Your task to perform on an android device: Open Google Maps and go to "Timeline" Image 0: 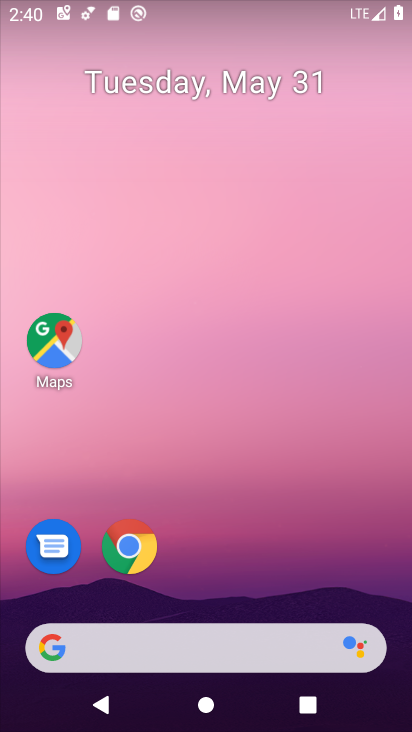
Step 0: click (59, 346)
Your task to perform on an android device: Open Google Maps and go to "Timeline" Image 1: 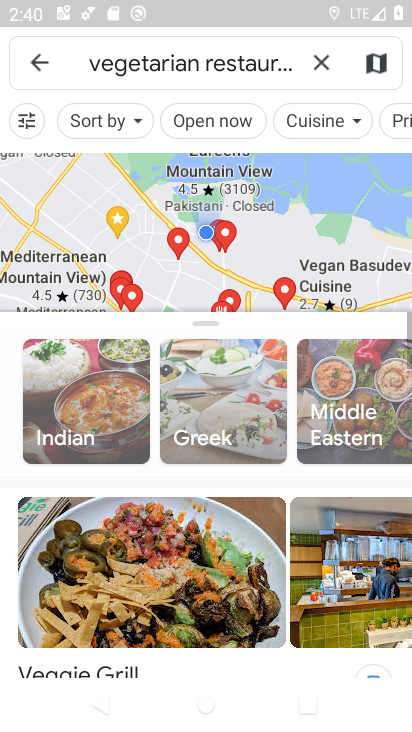
Step 1: click (37, 59)
Your task to perform on an android device: Open Google Maps and go to "Timeline" Image 2: 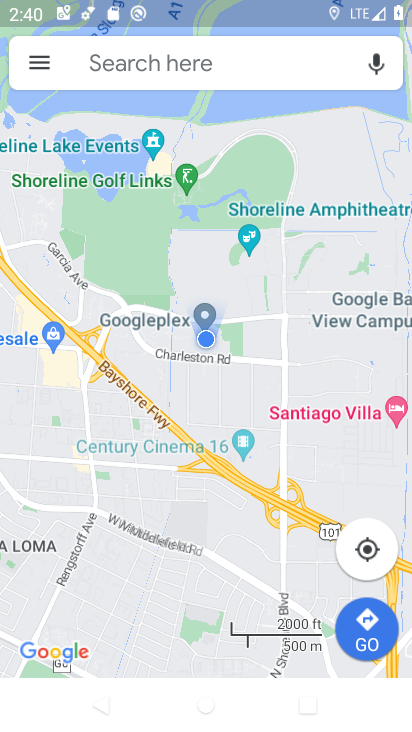
Step 2: click (37, 54)
Your task to perform on an android device: Open Google Maps and go to "Timeline" Image 3: 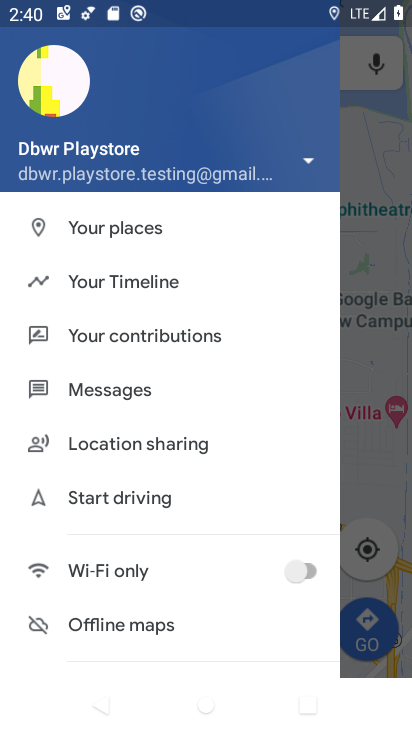
Step 3: click (120, 274)
Your task to perform on an android device: Open Google Maps and go to "Timeline" Image 4: 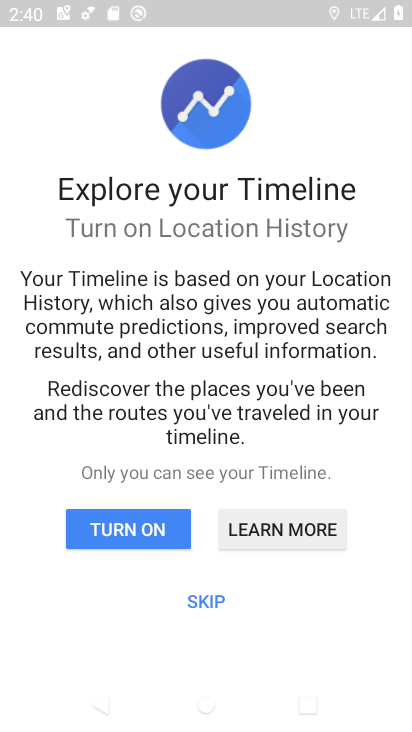
Step 4: click (129, 528)
Your task to perform on an android device: Open Google Maps and go to "Timeline" Image 5: 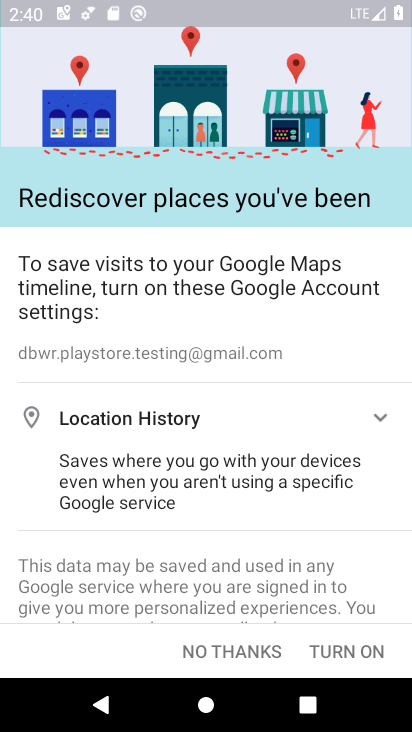
Step 5: click (359, 650)
Your task to perform on an android device: Open Google Maps and go to "Timeline" Image 6: 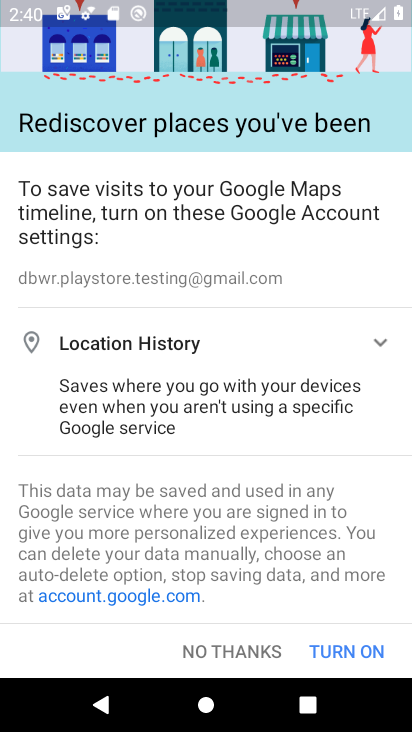
Step 6: click (345, 666)
Your task to perform on an android device: Open Google Maps and go to "Timeline" Image 7: 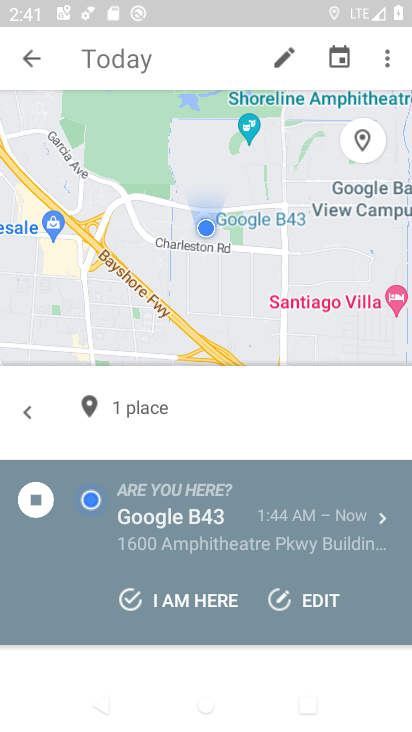
Step 7: task complete